Your task to perform on an android device: Go to Google Image 0: 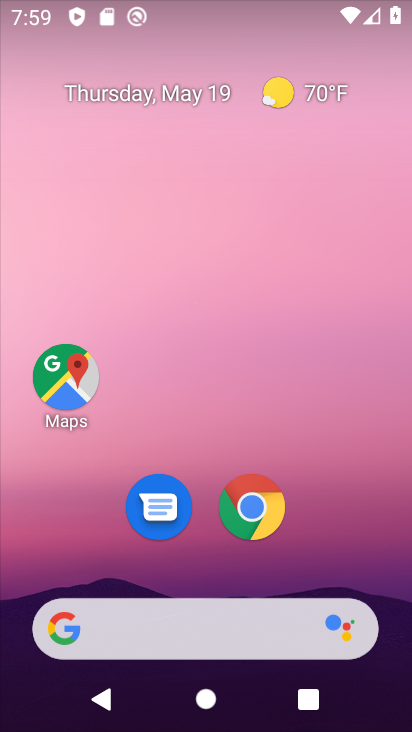
Step 0: drag from (214, 590) to (251, 197)
Your task to perform on an android device: Go to Google Image 1: 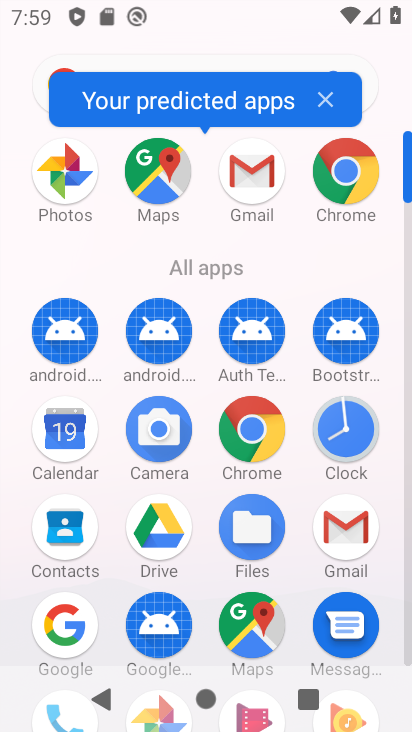
Step 1: click (77, 620)
Your task to perform on an android device: Go to Google Image 2: 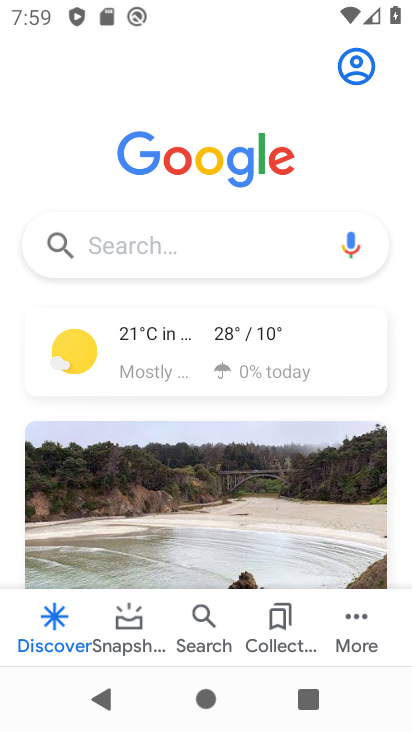
Step 2: task complete